Your task to perform on an android device: change notification settings in the gmail app Image 0: 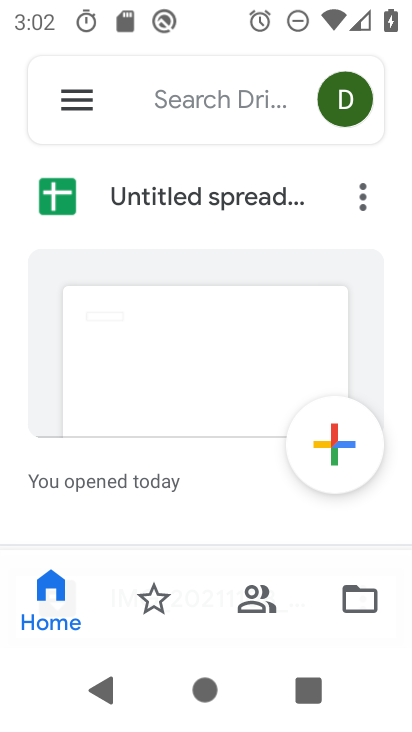
Step 0: press home button
Your task to perform on an android device: change notification settings in the gmail app Image 1: 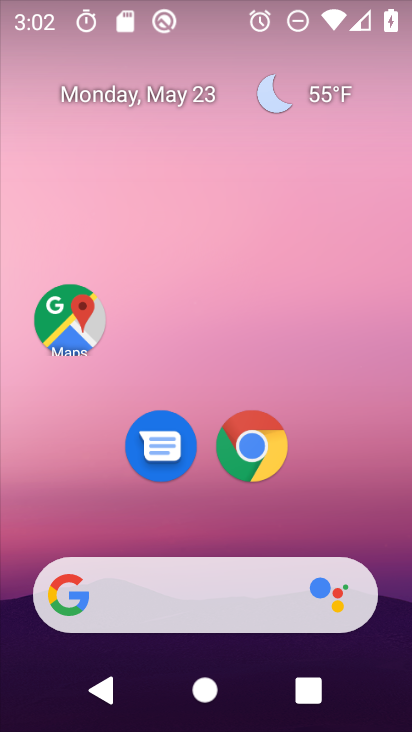
Step 1: drag from (191, 510) to (185, 233)
Your task to perform on an android device: change notification settings in the gmail app Image 2: 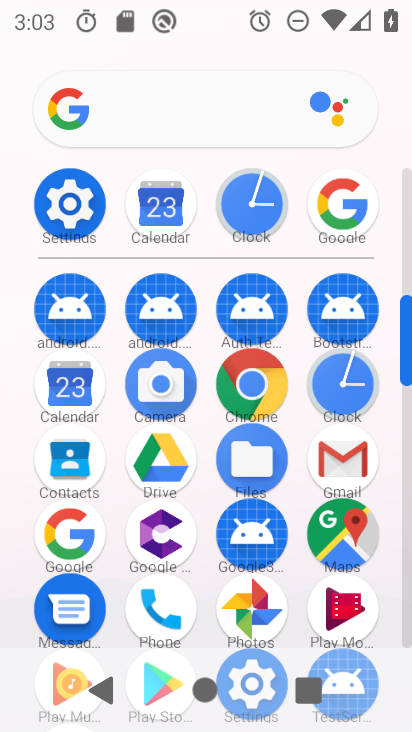
Step 2: click (331, 463)
Your task to perform on an android device: change notification settings in the gmail app Image 3: 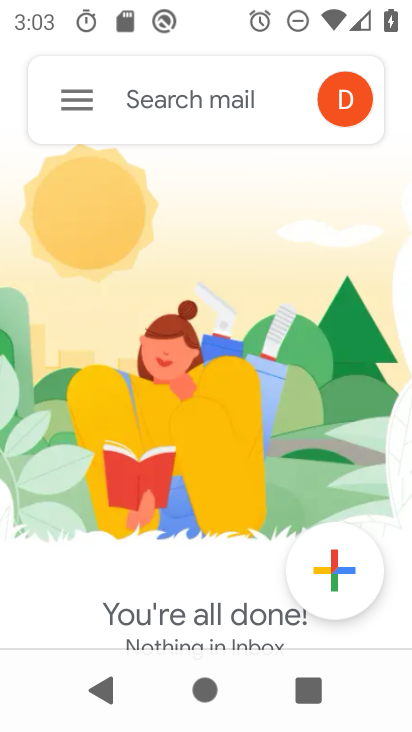
Step 3: click (64, 96)
Your task to perform on an android device: change notification settings in the gmail app Image 4: 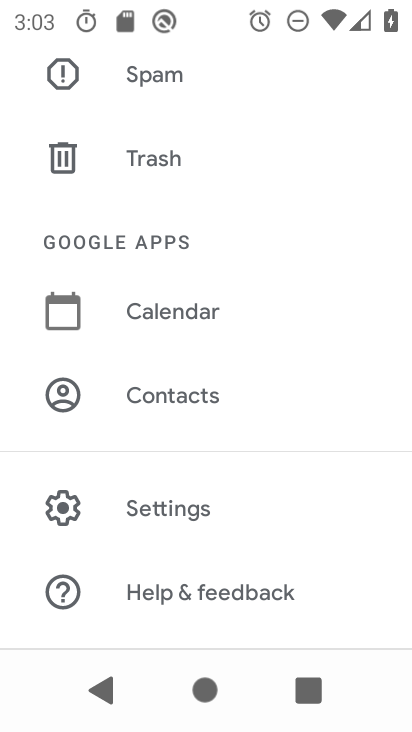
Step 4: click (214, 508)
Your task to perform on an android device: change notification settings in the gmail app Image 5: 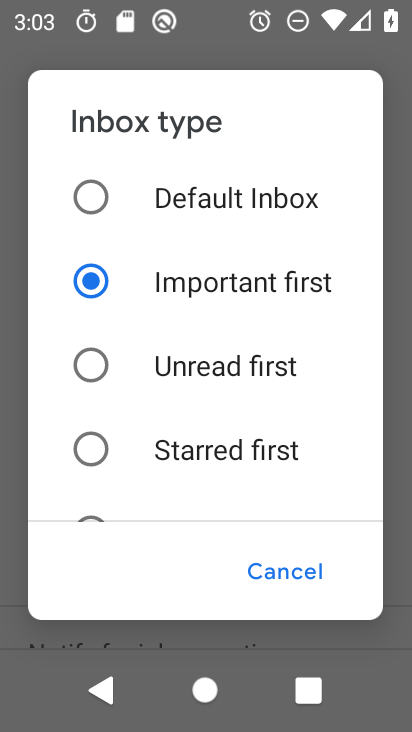
Step 5: drag from (170, 417) to (178, 279)
Your task to perform on an android device: change notification settings in the gmail app Image 6: 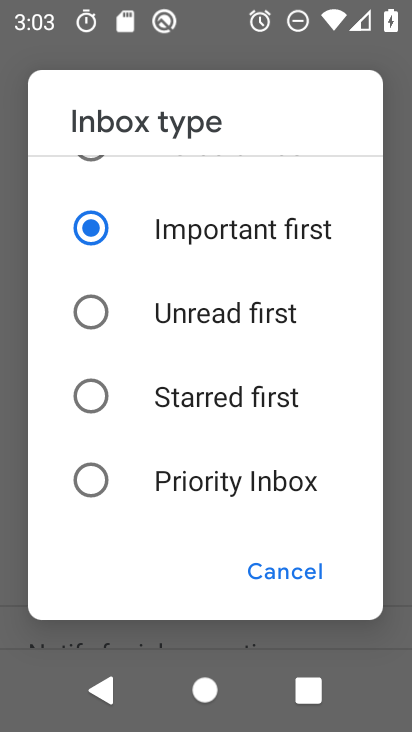
Step 6: click (264, 566)
Your task to perform on an android device: change notification settings in the gmail app Image 7: 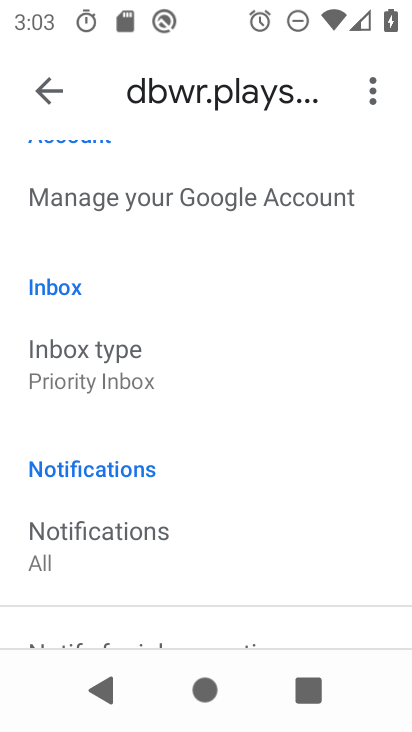
Step 7: drag from (161, 537) to (168, 253)
Your task to perform on an android device: change notification settings in the gmail app Image 8: 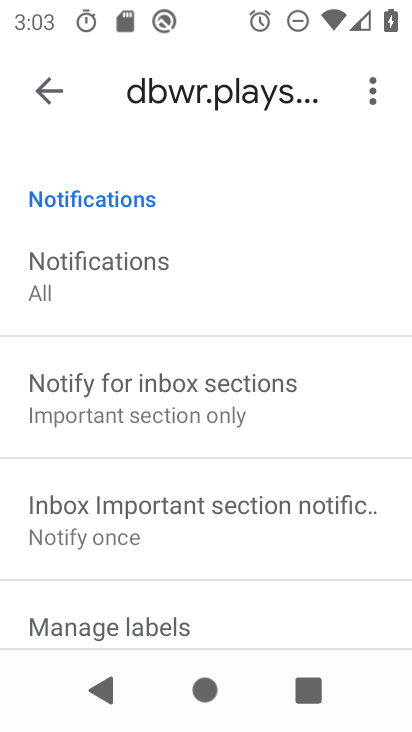
Step 8: drag from (179, 560) to (184, 273)
Your task to perform on an android device: change notification settings in the gmail app Image 9: 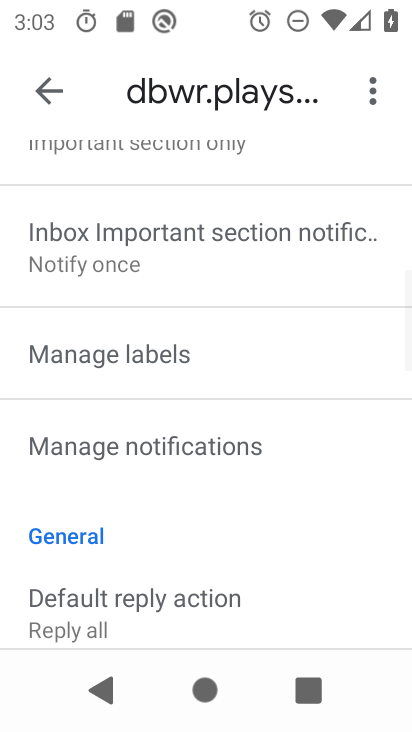
Step 9: click (164, 440)
Your task to perform on an android device: change notification settings in the gmail app Image 10: 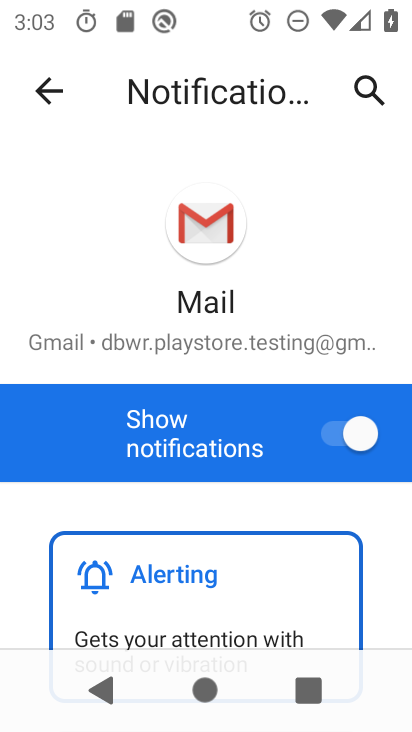
Step 10: click (326, 447)
Your task to perform on an android device: change notification settings in the gmail app Image 11: 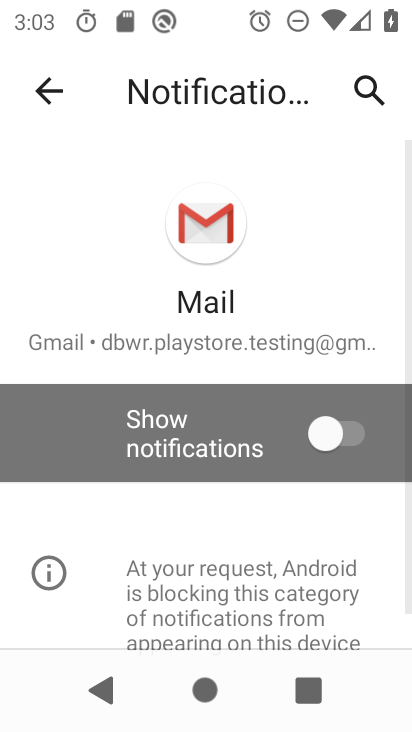
Step 11: task complete